Your task to perform on an android device: delete location history Image 0: 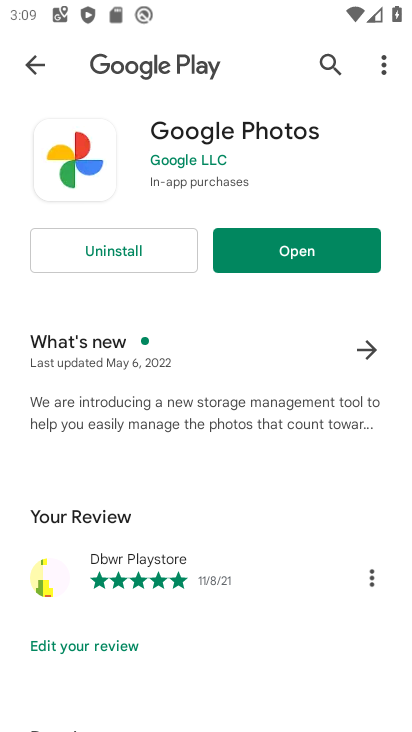
Step 0: press home button
Your task to perform on an android device: delete location history Image 1: 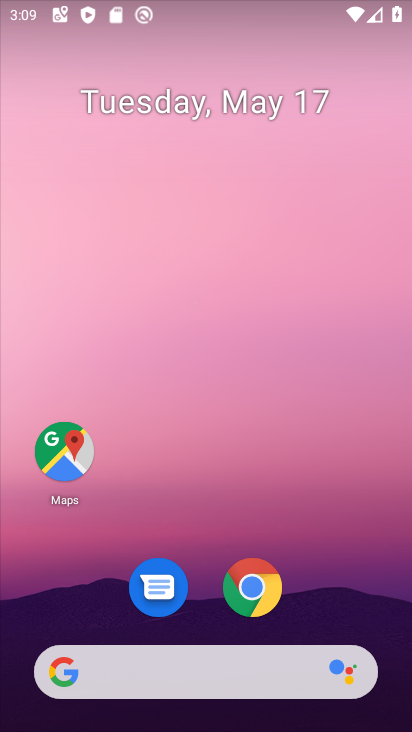
Step 1: drag from (219, 620) to (304, 62)
Your task to perform on an android device: delete location history Image 2: 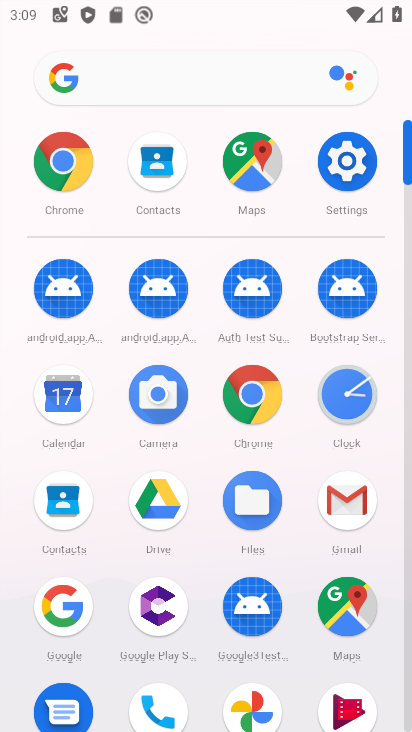
Step 2: click (338, 585)
Your task to perform on an android device: delete location history Image 3: 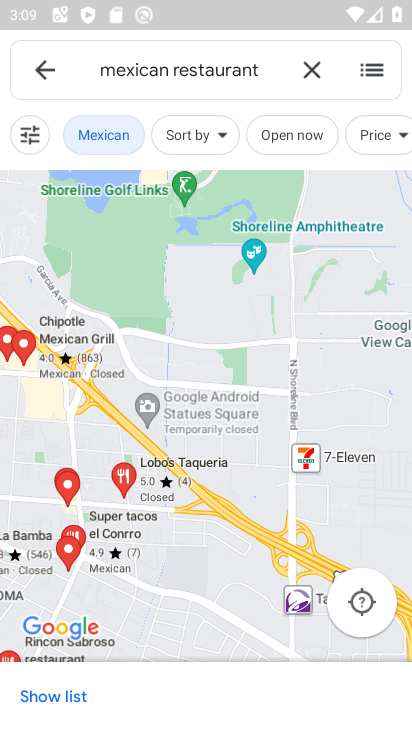
Step 3: press back button
Your task to perform on an android device: delete location history Image 4: 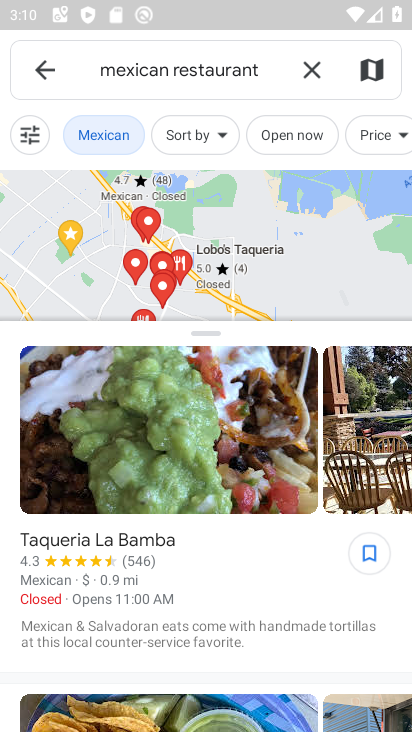
Step 4: press back button
Your task to perform on an android device: delete location history Image 5: 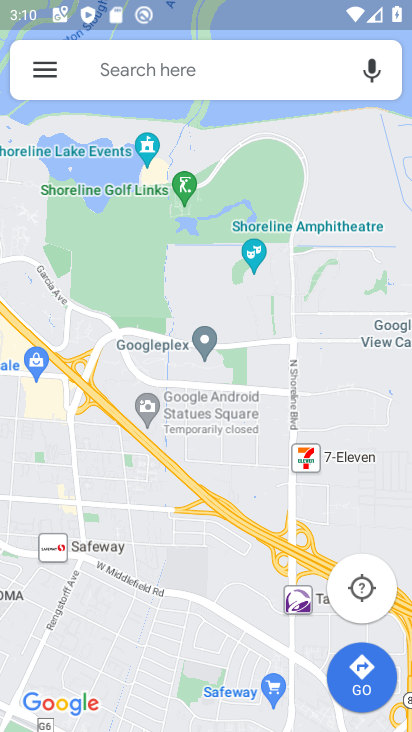
Step 5: click (39, 66)
Your task to perform on an android device: delete location history Image 6: 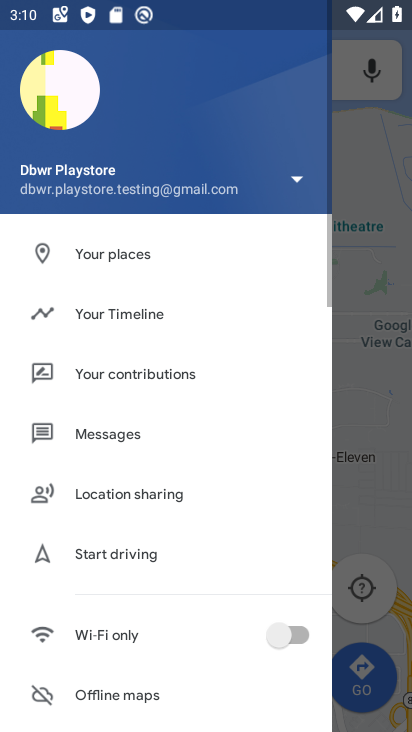
Step 6: drag from (181, 594) to (209, 135)
Your task to perform on an android device: delete location history Image 7: 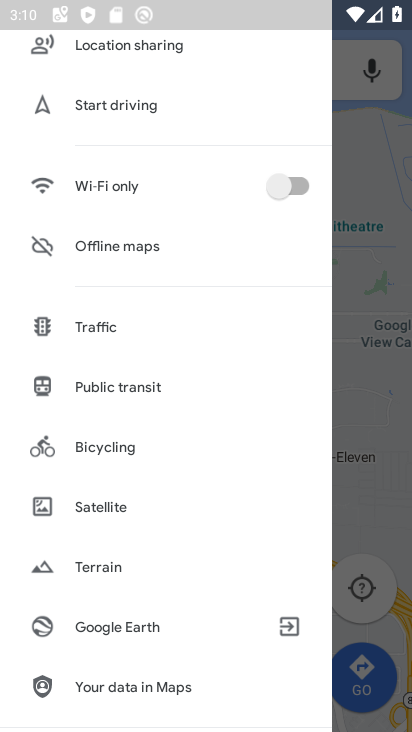
Step 7: drag from (161, 171) to (194, 711)
Your task to perform on an android device: delete location history Image 8: 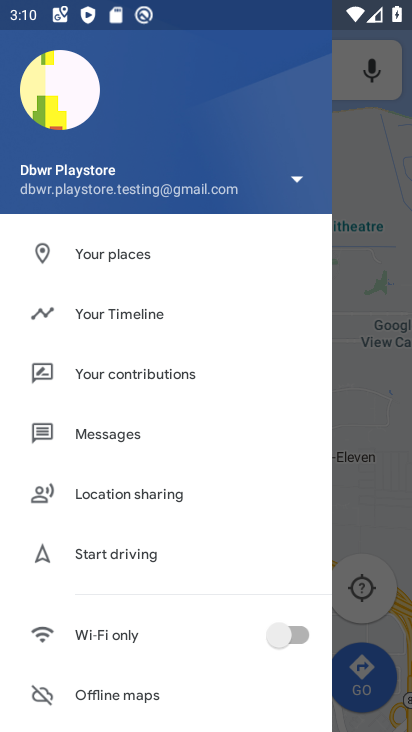
Step 8: click (138, 325)
Your task to perform on an android device: delete location history Image 9: 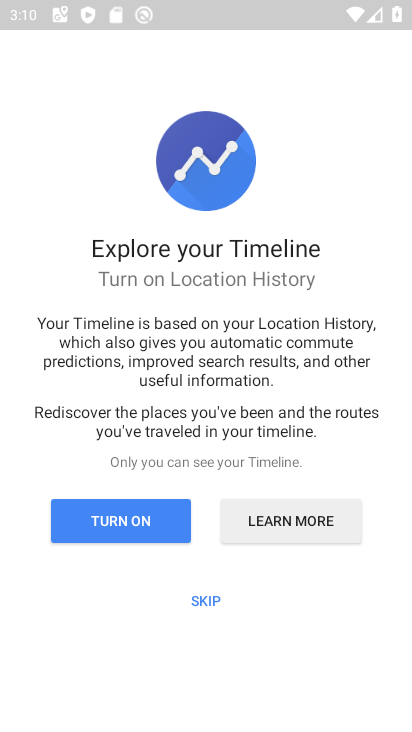
Step 9: click (208, 601)
Your task to perform on an android device: delete location history Image 10: 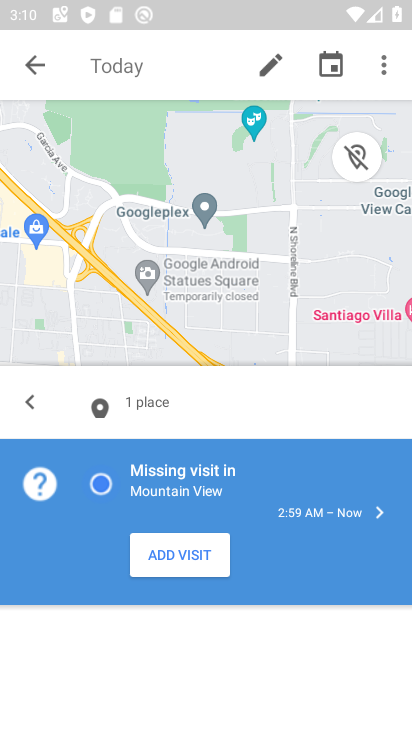
Step 10: click (390, 70)
Your task to perform on an android device: delete location history Image 11: 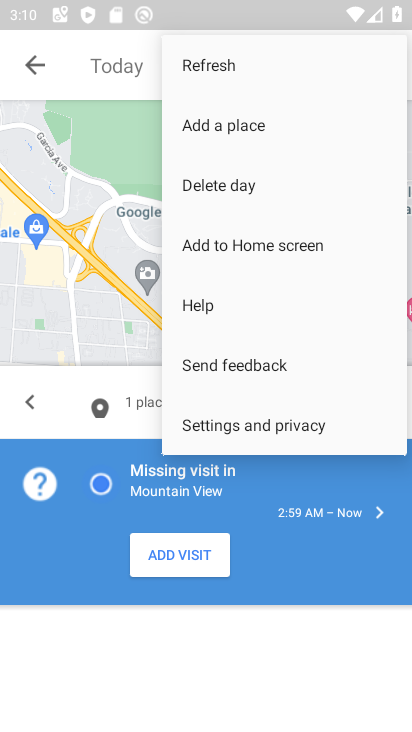
Step 11: click (271, 432)
Your task to perform on an android device: delete location history Image 12: 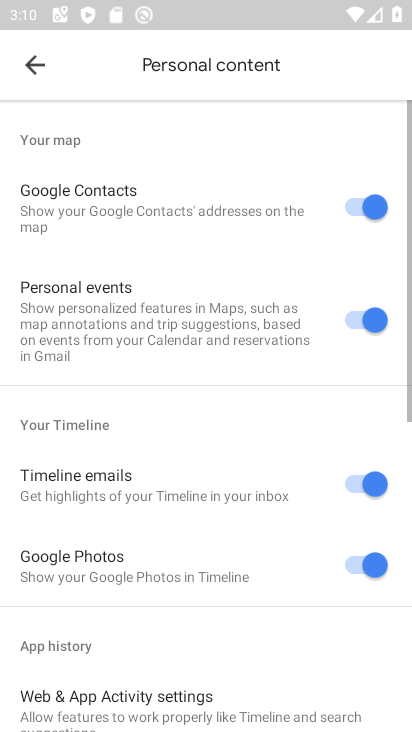
Step 12: drag from (274, 538) to (293, 71)
Your task to perform on an android device: delete location history Image 13: 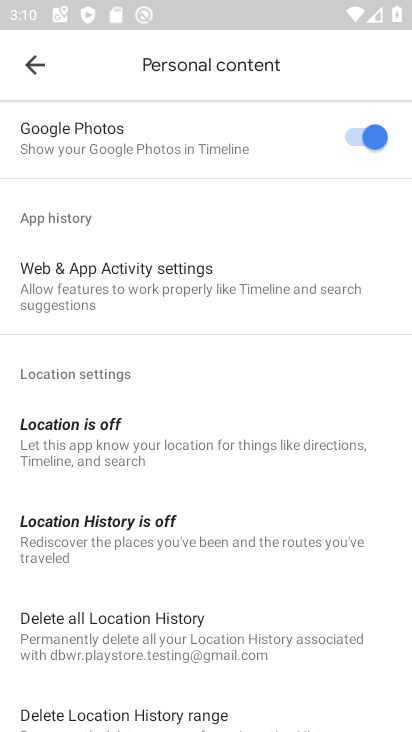
Step 13: click (150, 625)
Your task to perform on an android device: delete location history Image 14: 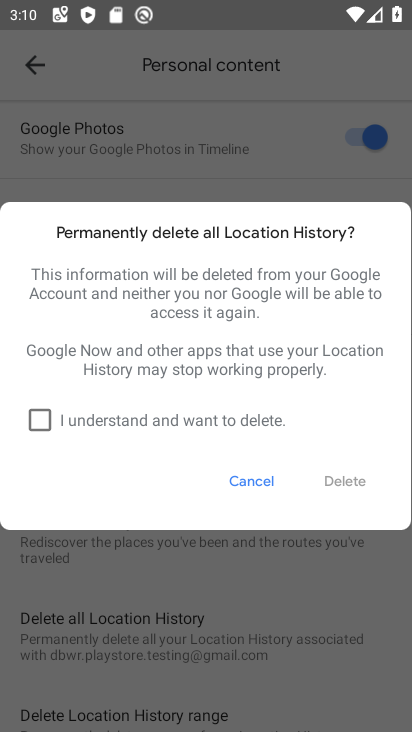
Step 14: click (40, 416)
Your task to perform on an android device: delete location history Image 15: 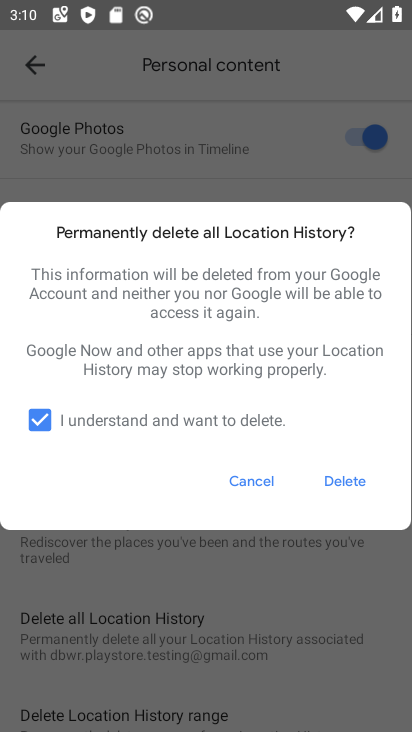
Step 15: click (354, 481)
Your task to perform on an android device: delete location history Image 16: 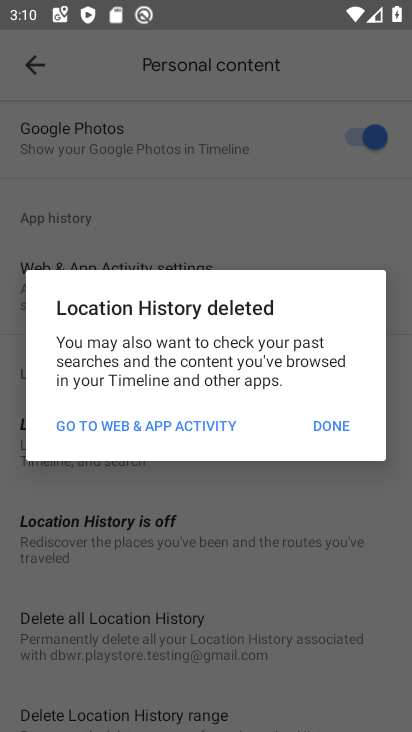
Step 16: click (334, 420)
Your task to perform on an android device: delete location history Image 17: 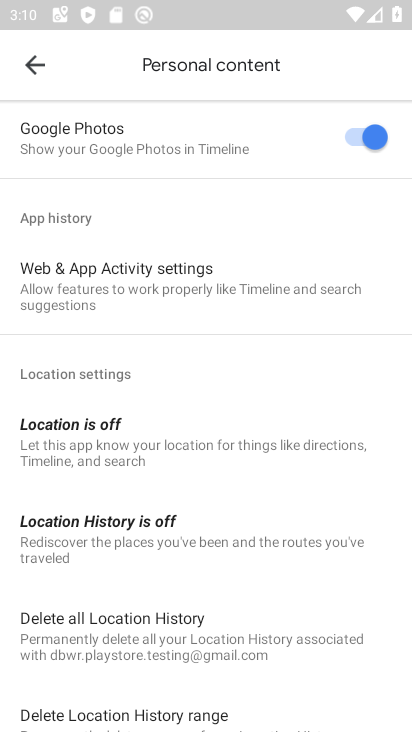
Step 17: task complete